Your task to perform on an android device: Open Youtube and go to "Your channel" Image 0: 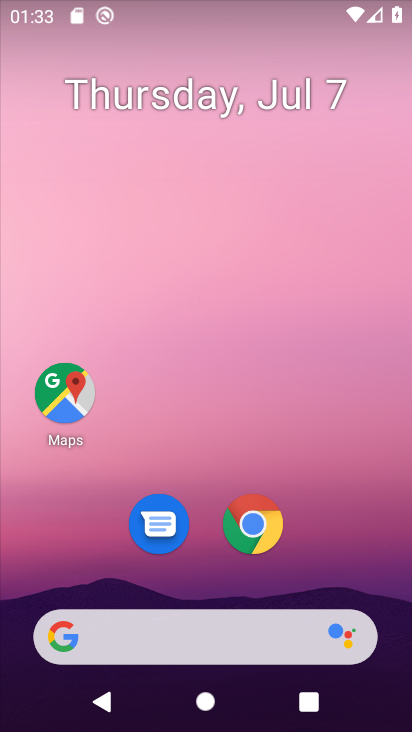
Step 0: drag from (340, 553) to (254, 53)
Your task to perform on an android device: Open Youtube and go to "Your channel" Image 1: 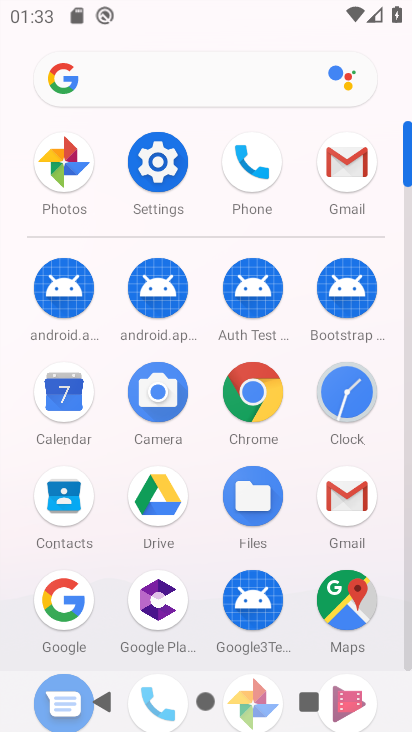
Step 1: drag from (198, 512) to (194, 230)
Your task to perform on an android device: Open Youtube and go to "Your channel" Image 2: 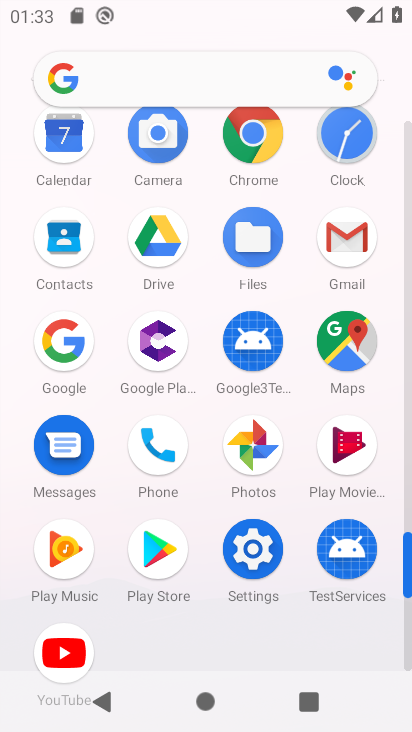
Step 2: click (71, 658)
Your task to perform on an android device: Open Youtube and go to "Your channel" Image 3: 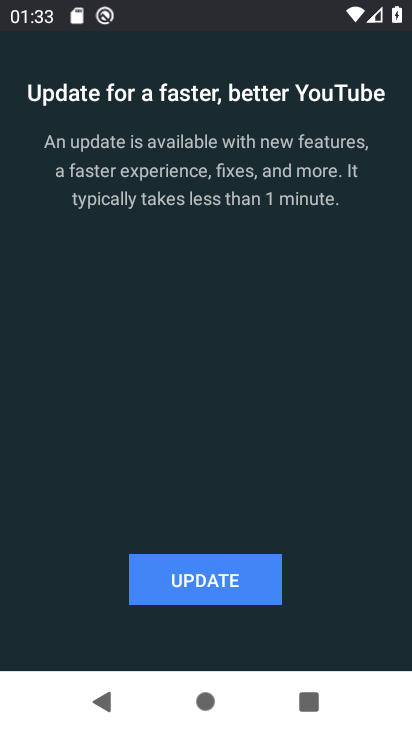
Step 3: click (244, 573)
Your task to perform on an android device: Open Youtube and go to "Your channel" Image 4: 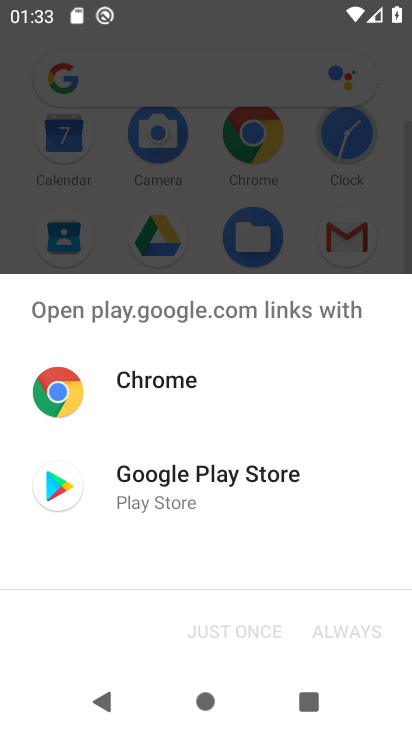
Step 4: click (184, 478)
Your task to perform on an android device: Open Youtube and go to "Your channel" Image 5: 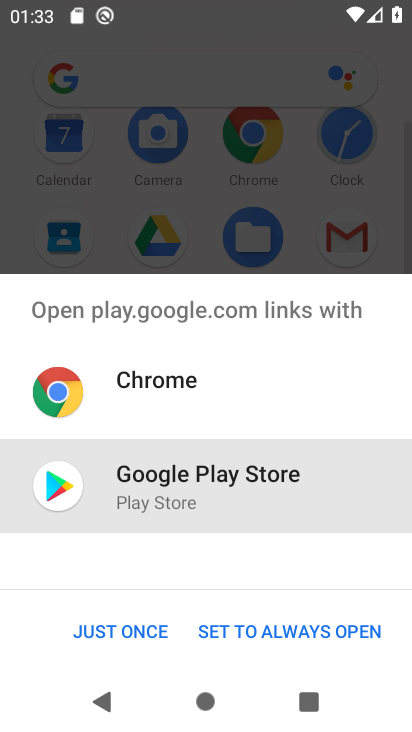
Step 5: click (141, 624)
Your task to perform on an android device: Open Youtube and go to "Your channel" Image 6: 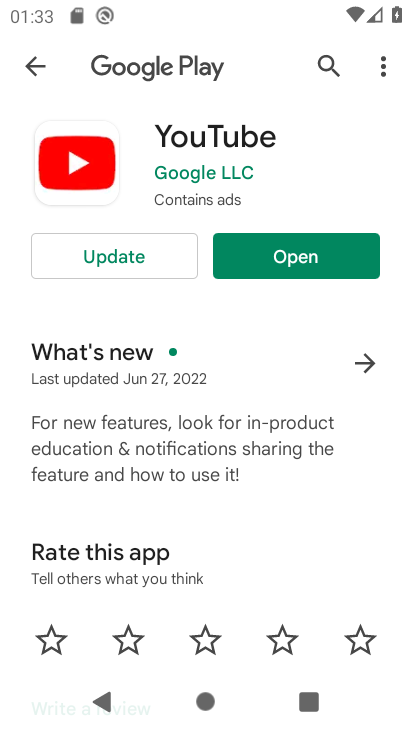
Step 6: click (136, 249)
Your task to perform on an android device: Open Youtube and go to "Your channel" Image 7: 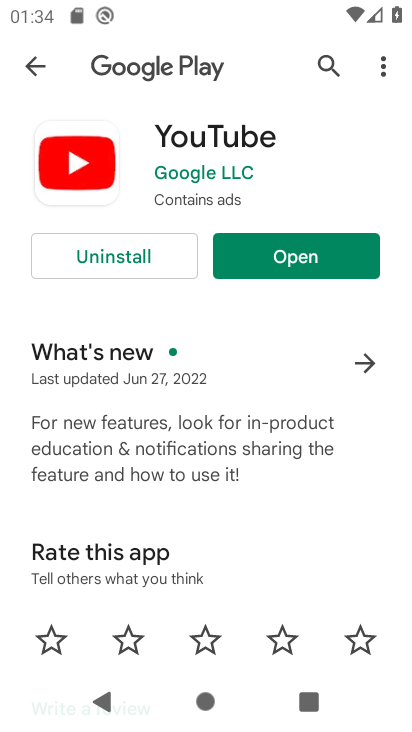
Step 7: click (333, 250)
Your task to perform on an android device: Open Youtube and go to "Your channel" Image 8: 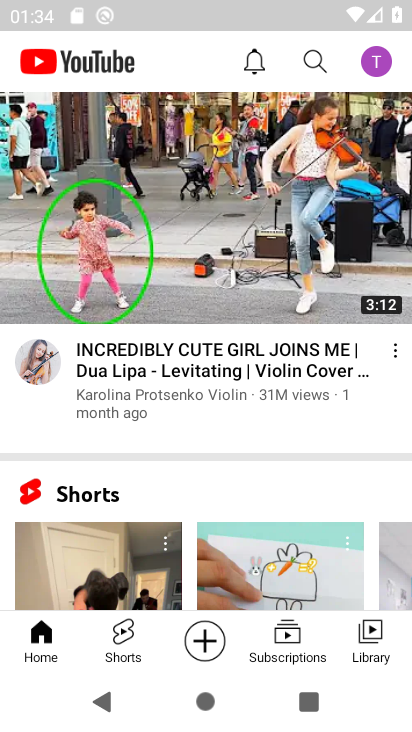
Step 8: click (375, 62)
Your task to perform on an android device: Open Youtube and go to "Your channel" Image 9: 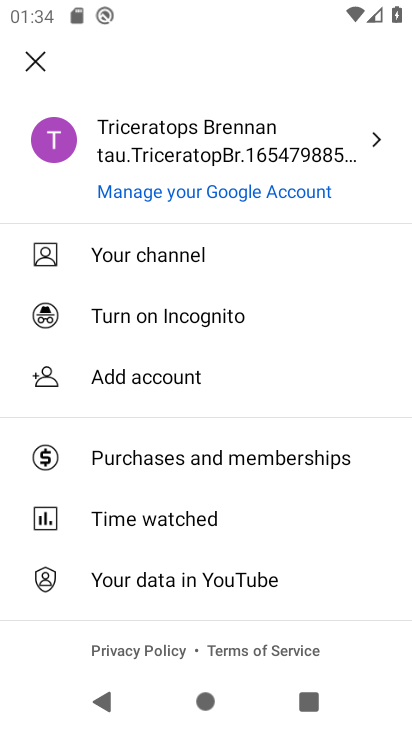
Step 9: click (179, 261)
Your task to perform on an android device: Open Youtube and go to "Your channel" Image 10: 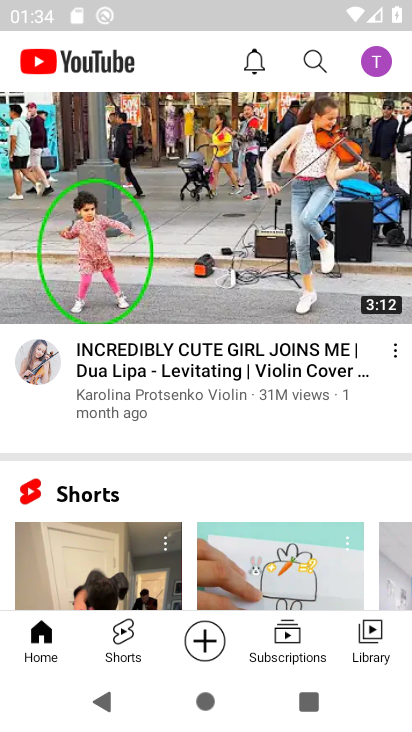
Step 10: task complete